Your task to perform on an android device: Go to Wikipedia Image 0: 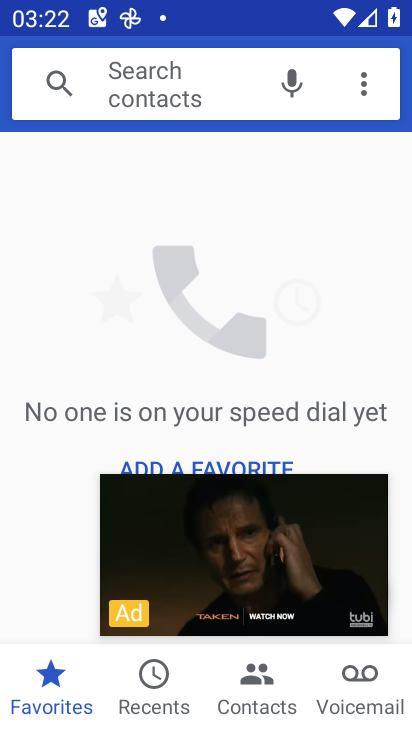
Step 0: press home button
Your task to perform on an android device: Go to Wikipedia Image 1: 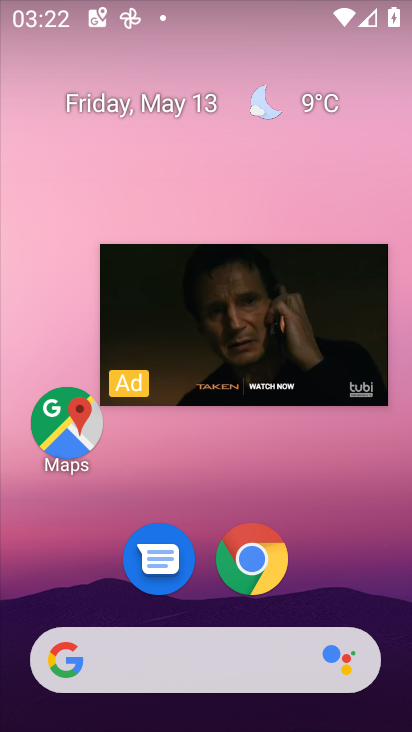
Step 1: click (250, 564)
Your task to perform on an android device: Go to Wikipedia Image 2: 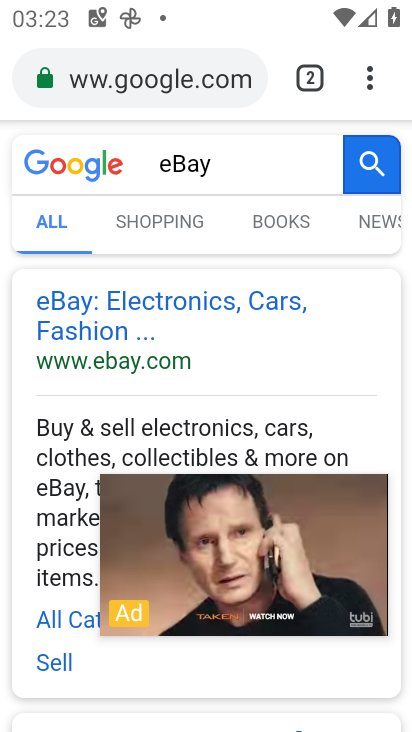
Step 2: click (256, 78)
Your task to perform on an android device: Go to Wikipedia Image 3: 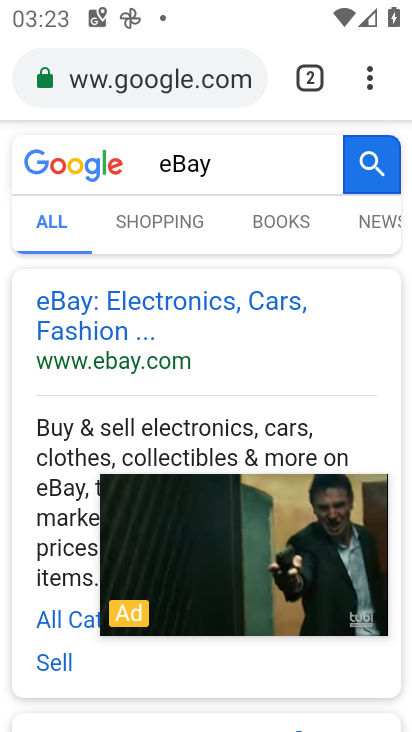
Step 3: click (249, 78)
Your task to perform on an android device: Go to Wikipedia Image 4: 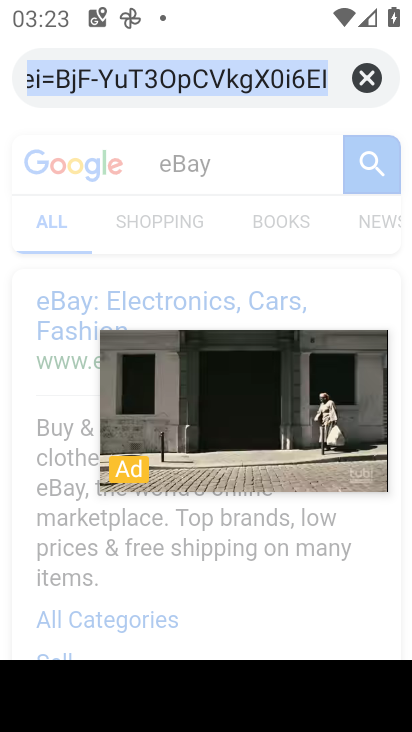
Step 4: click (373, 73)
Your task to perform on an android device: Go to Wikipedia Image 5: 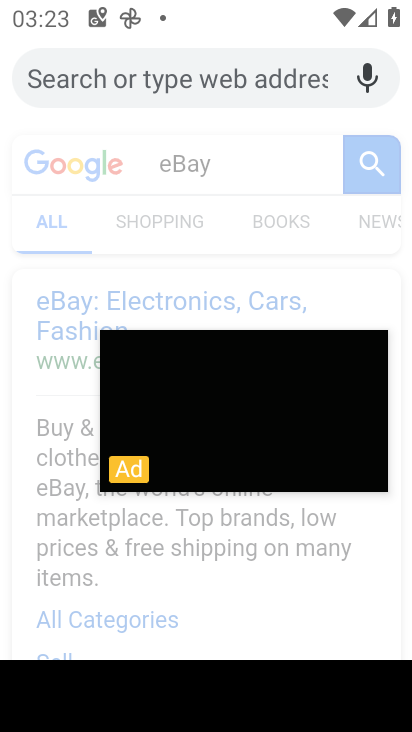
Step 5: type "Wikipedia"
Your task to perform on an android device: Go to Wikipedia Image 6: 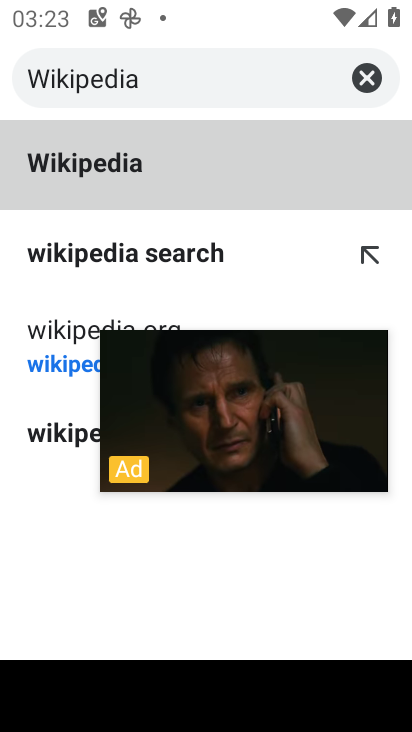
Step 6: click (93, 158)
Your task to perform on an android device: Go to Wikipedia Image 7: 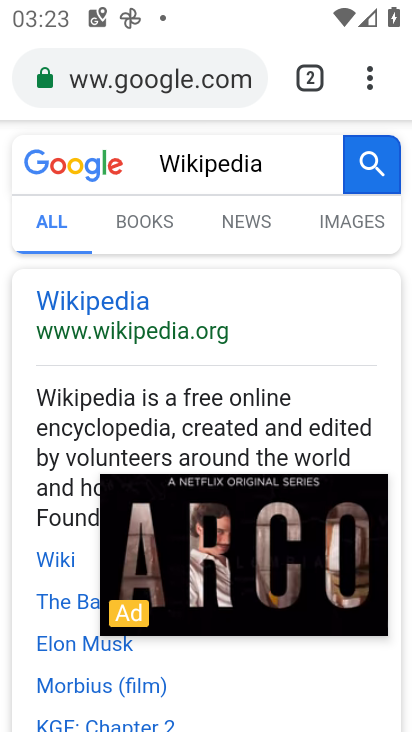
Step 7: task complete